Your task to perform on an android device: Open Yahoo.com Image 0: 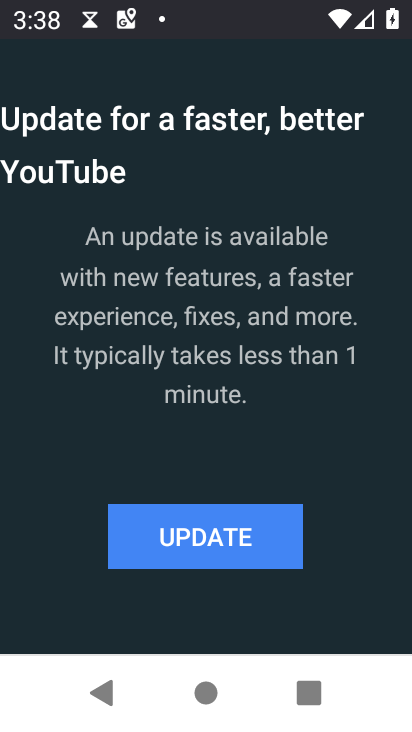
Step 0: drag from (326, 501) to (320, 73)
Your task to perform on an android device: Open Yahoo.com Image 1: 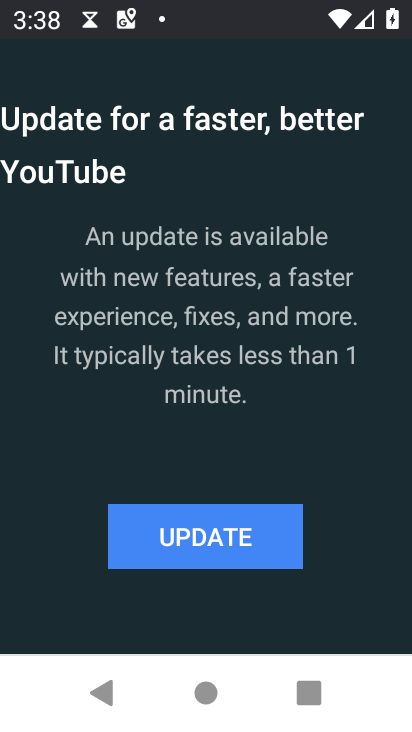
Step 1: press home button
Your task to perform on an android device: Open Yahoo.com Image 2: 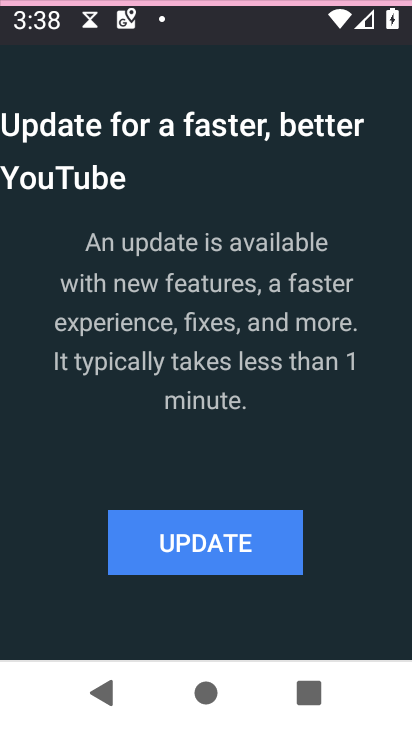
Step 2: press home button
Your task to perform on an android device: Open Yahoo.com Image 3: 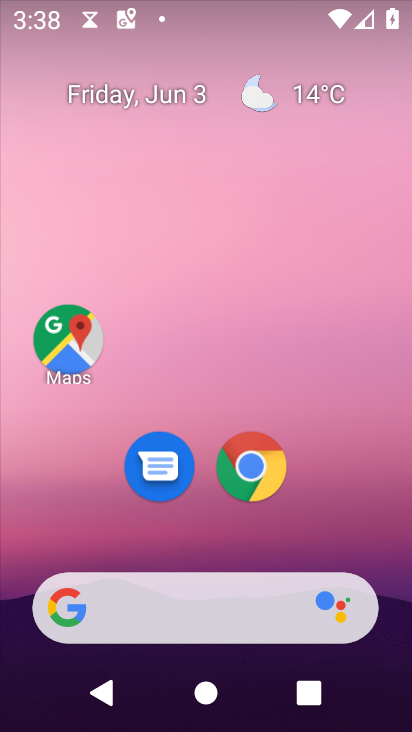
Step 3: click (276, 455)
Your task to perform on an android device: Open Yahoo.com Image 4: 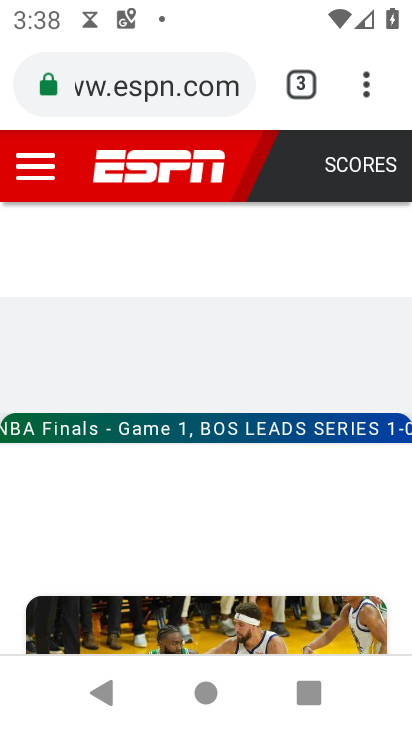
Step 4: click (309, 70)
Your task to perform on an android device: Open Yahoo.com Image 5: 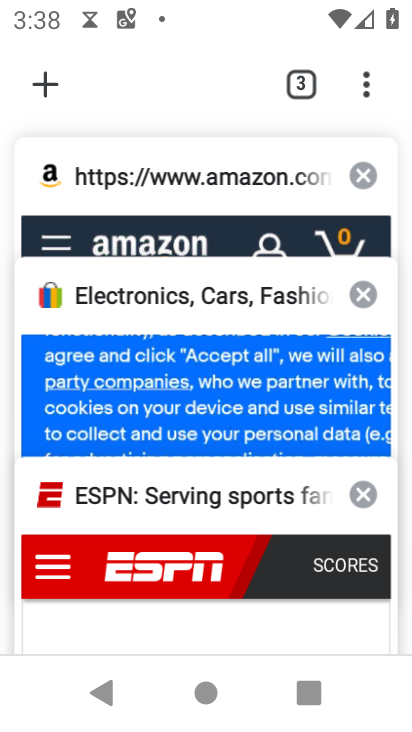
Step 5: click (45, 94)
Your task to perform on an android device: Open Yahoo.com Image 6: 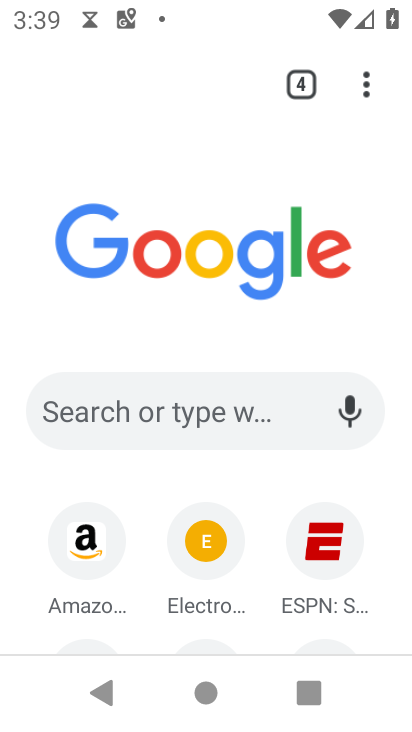
Step 6: drag from (264, 480) to (209, 84)
Your task to perform on an android device: Open Yahoo.com Image 7: 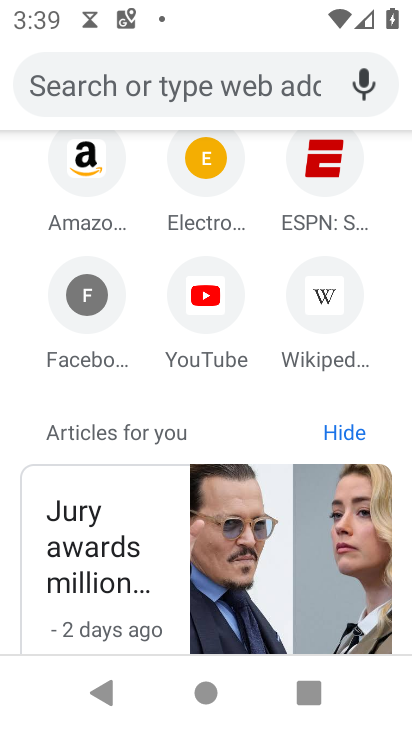
Step 7: drag from (199, 150) to (292, 521)
Your task to perform on an android device: Open Yahoo.com Image 8: 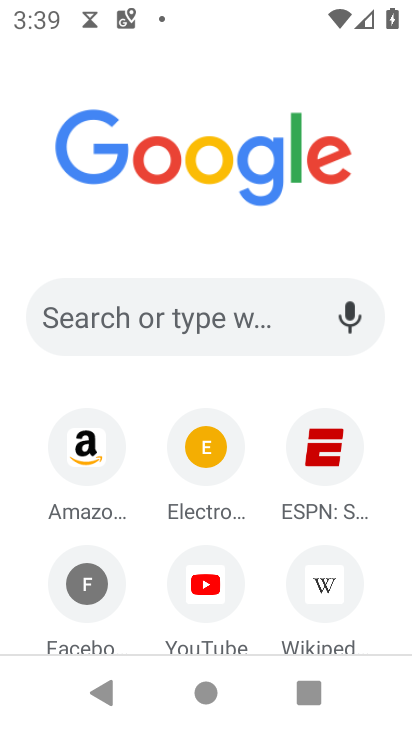
Step 8: click (175, 333)
Your task to perform on an android device: Open Yahoo.com Image 9: 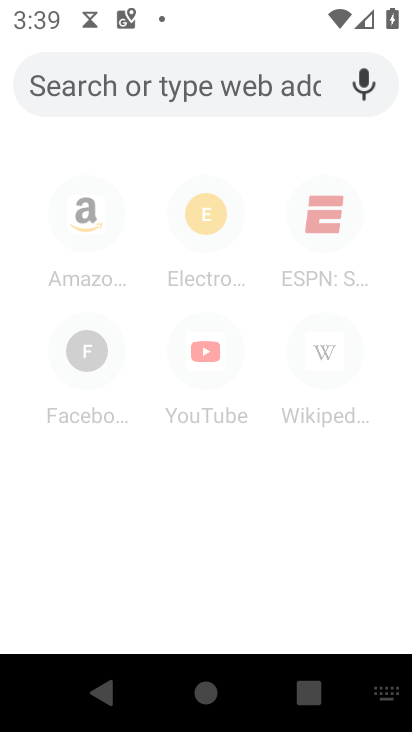
Step 9: type "Yahoo.com"
Your task to perform on an android device: Open Yahoo.com Image 10: 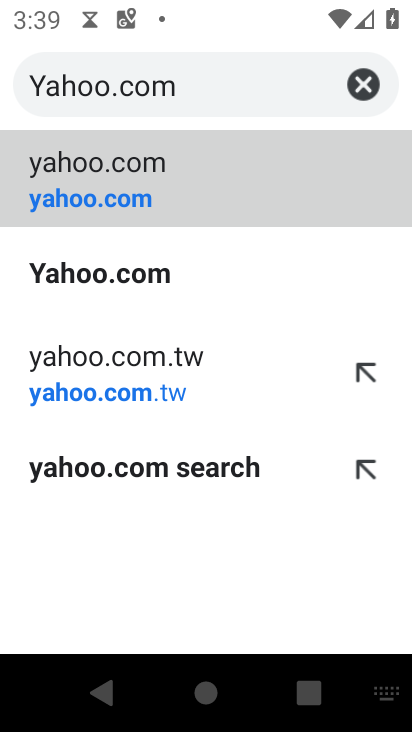
Step 10: click (370, 209)
Your task to perform on an android device: Open Yahoo.com Image 11: 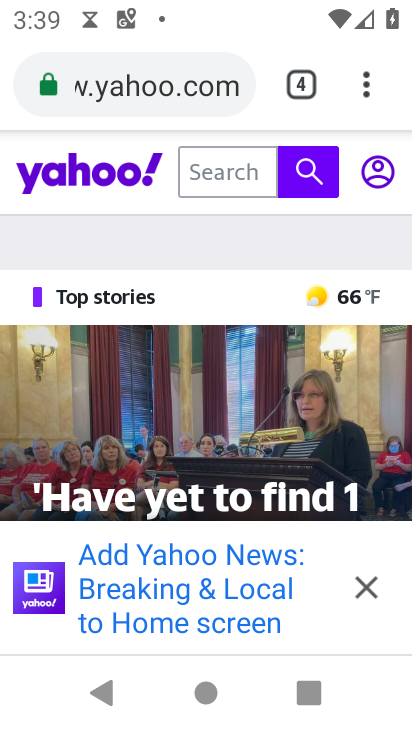
Step 11: task complete